Your task to perform on an android device: turn on improve location accuracy Image 0: 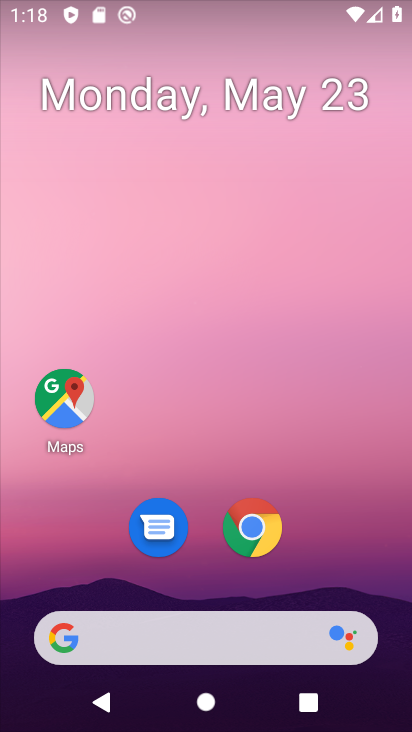
Step 0: drag from (161, 580) to (236, 54)
Your task to perform on an android device: turn on improve location accuracy Image 1: 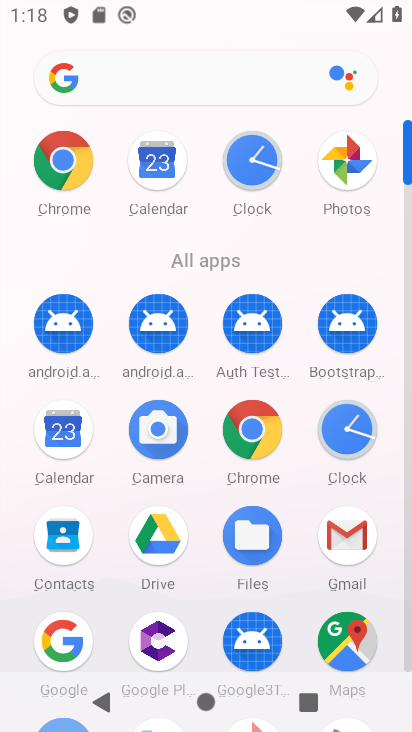
Step 1: drag from (239, 294) to (245, 103)
Your task to perform on an android device: turn on improve location accuracy Image 2: 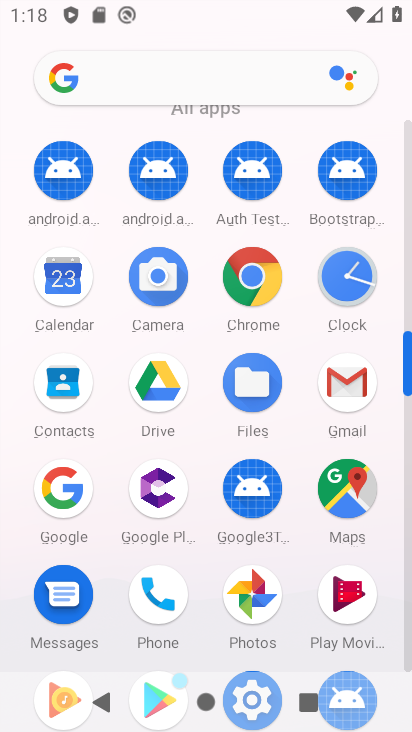
Step 2: drag from (235, 611) to (264, 153)
Your task to perform on an android device: turn on improve location accuracy Image 3: 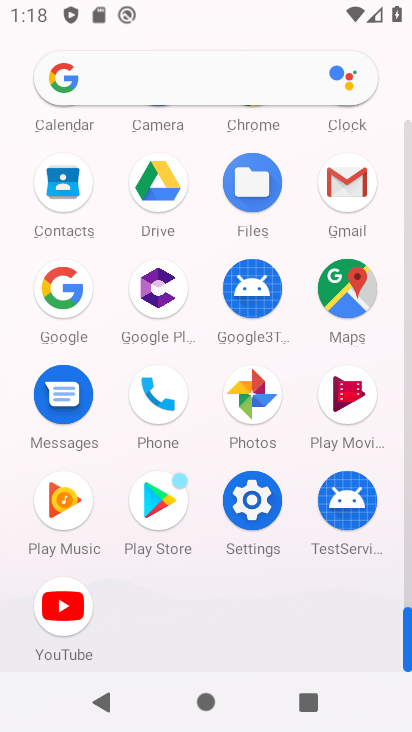
Step 3: click (255, 503)
Your task to perform on an android device: turn on improve location accuracy Image 4: 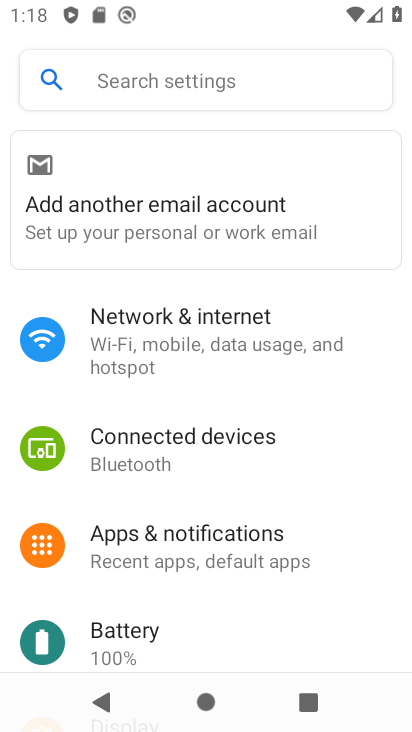
Step 4: drag from (181, 581) to (250, 109)
Your task to perform on an android device: turn on improve location accuracy Image 5: 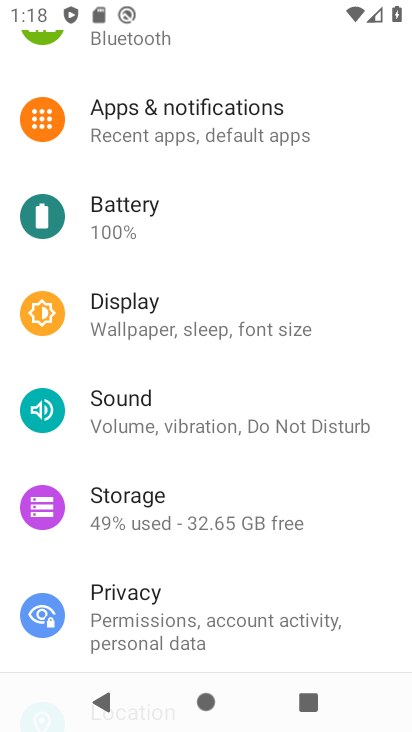
Step 5: drag from (120, 604) to (238, 116)
Your task to perform on an android device: turn on improve location accuracy Image 6: 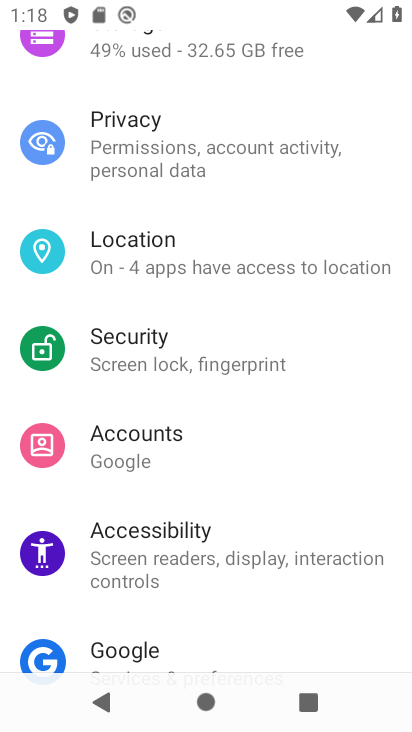
Step 6: click (138, 262)
Your task to perform on an android device: turn on improve location accuracy Image 7: 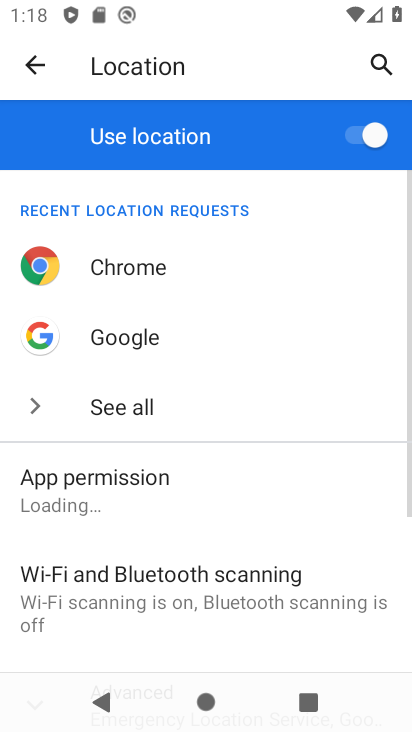
Step 7: drag from (173, 583) to (275, 71)
Your task to perform on an android device: turn on improve location accuracy Image 8: 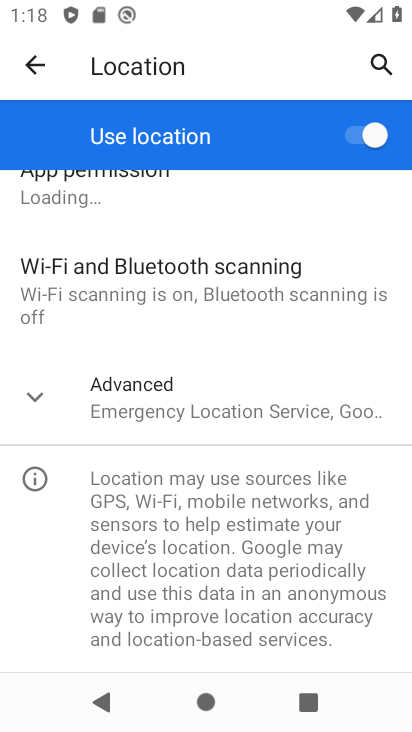
Step 8: click (194, 381)
Your task to perform on an android device: turn on improve location accuracy Image 9: 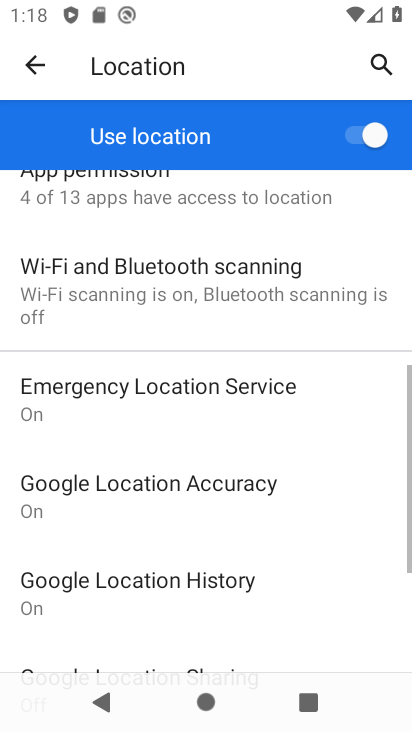
Step 9: click (193, 455)
Your task to perform on an android device: turn on improve location accuracy Image 10: 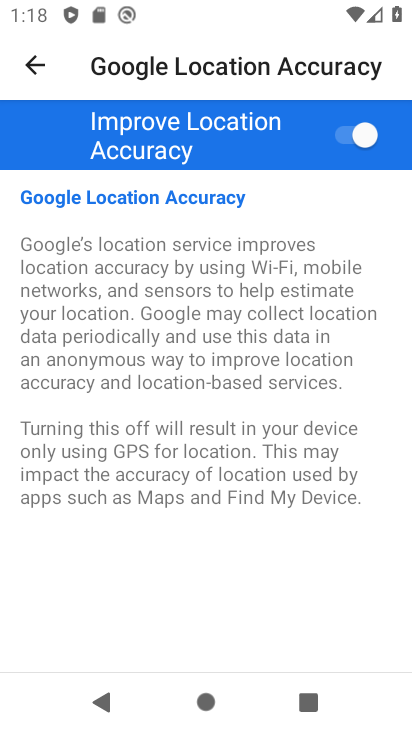
Step 10: task complete